Your task to perform on an android device: turn pop-ups on in chrome Image 0: 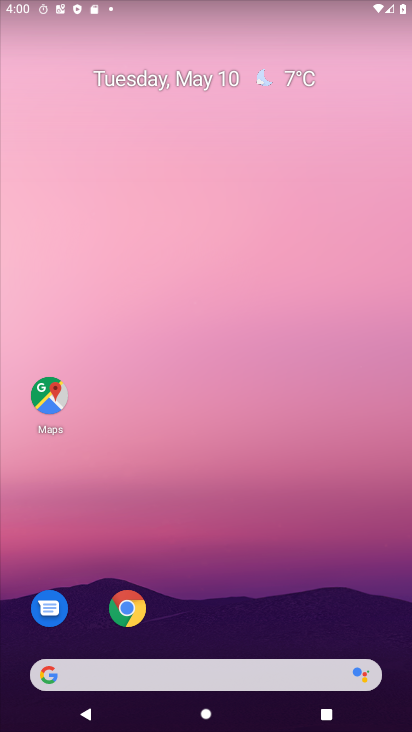
Step 0: click (129, 611)
Your task to perform on an android device: turn pop-ups on in chrome Image 1: 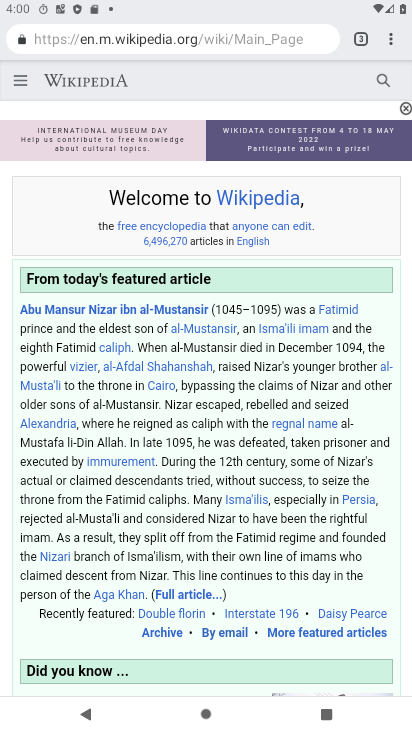
Step 1: click (393, 35)
Your task to perform on an android device: turn pop-ups on in chrome Image 2: 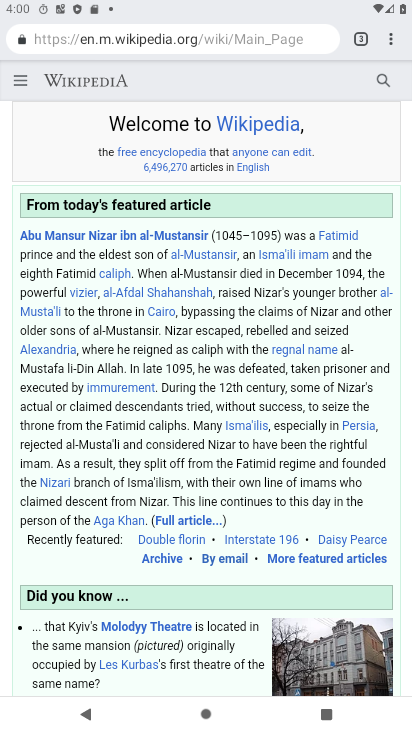
Step 2: drag from (396, 34) to (239, 470)
Your task to perform on an android device: turn pop-ups on in chrome Image 3: 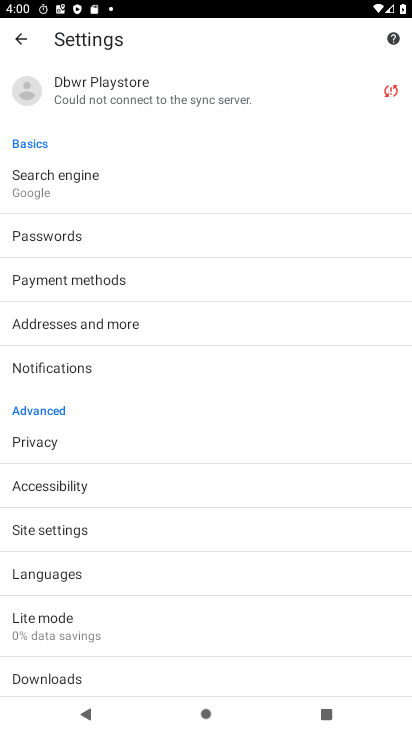
Step 3: click (41, 537)
Your task to perform on an android device: turn pop-ups on in chrome Image 4: 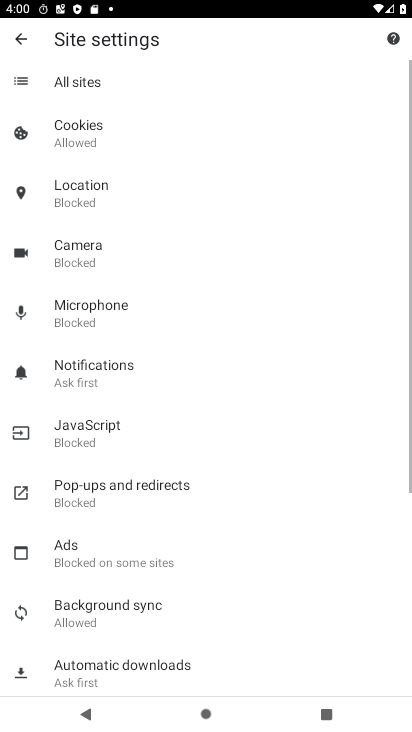
Step 4: click (103, 477)
Your task to perform on an android device: turn pop-ups on in chrome Image 5: 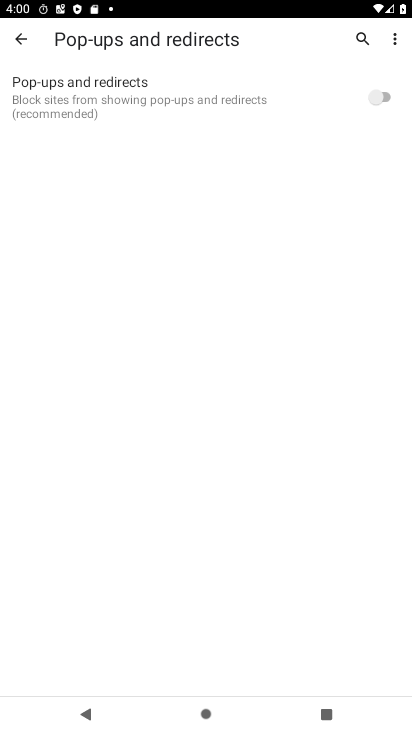
Step 5: click (371, 100)
Your task to perform on an android device: turn pop-ups on in chrome Image 6: 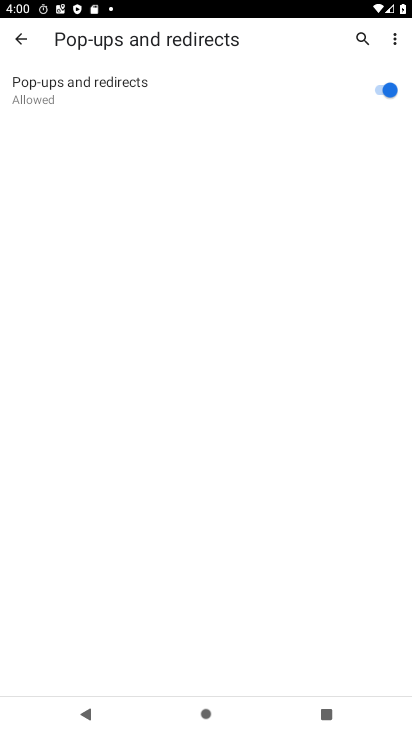
Step 6: task complete